Your task to perform on an android device: turn on notifications settings in the gmail app Image 0: 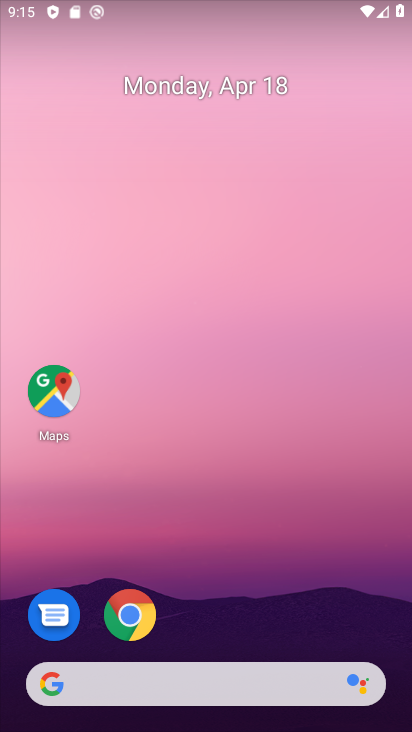
Step 0: drag from (197, 373) to (197, 331)
Your task to perform on an android device: turn on notifications settings in the gmail app Image 1: 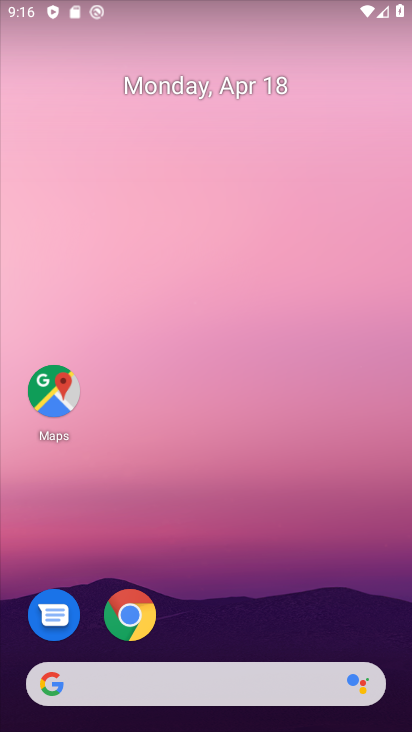
Step 1: drag from (184, 660) to (201, 304)
Your task to perform on an android device: turn on notifications settings in the gmail app Image 2: 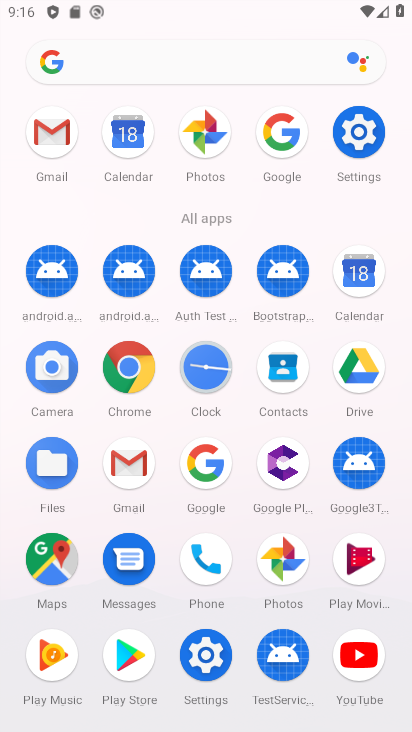
Step 2: click (55, 134)
Your task to perform on an android device: turn on notifications settings in the gmail app Image 3: 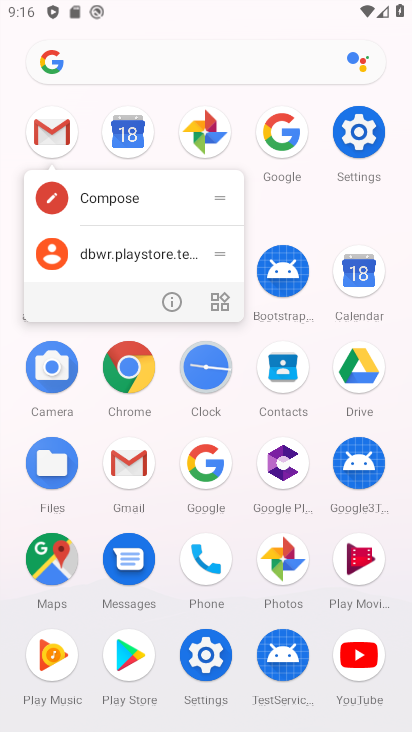
Step 3: click (54, 140)
Your task to perform on an android device: turn on notifications settings in the gmail app Image 4: 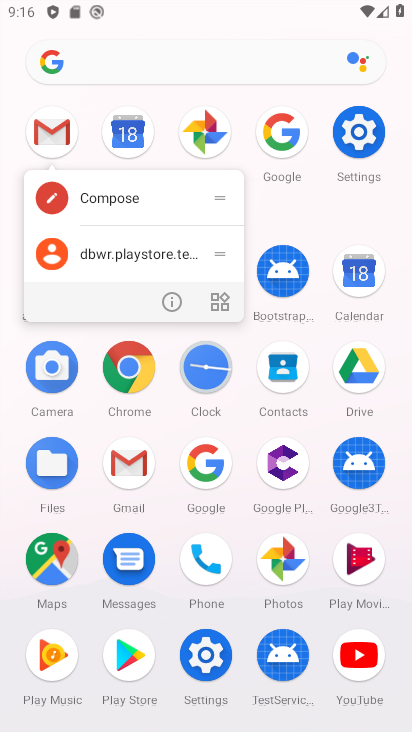
Step 4: click (54, 140)
Your task to perform on an android device: turn on notifications settings in the gmail app Image 5: 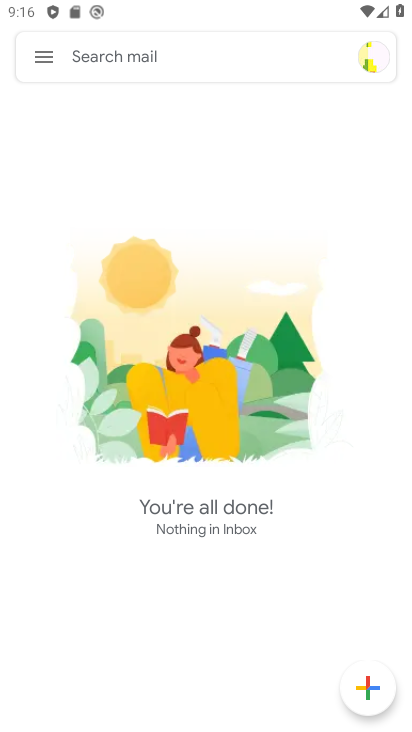
Step 5: click (38, 65)
Your task to perform on an android device: turn on notifications settings in the gmail app Image 6: 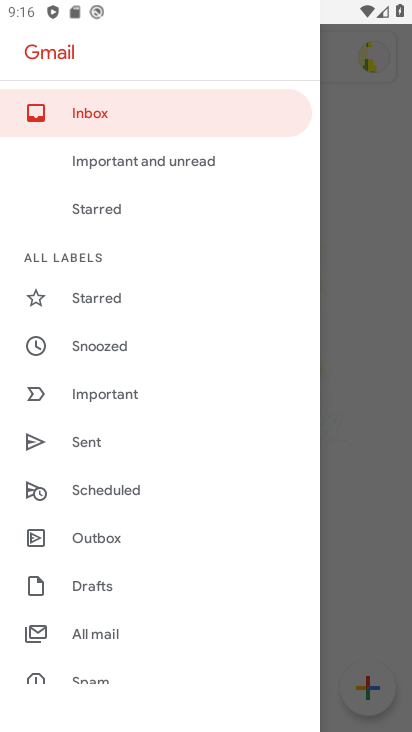
Step 6: drag from (132, 684) to (178, 427)
Your task to perform on an android device: turn on notifications settings in the gmail app Image 7: 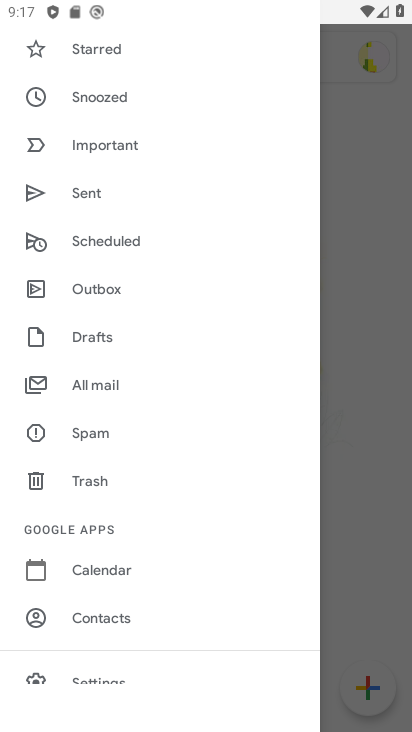
Step 7: click (76, 677)
Your task to perform on an android device: turn on notifications settings in the gmail app Image 8: 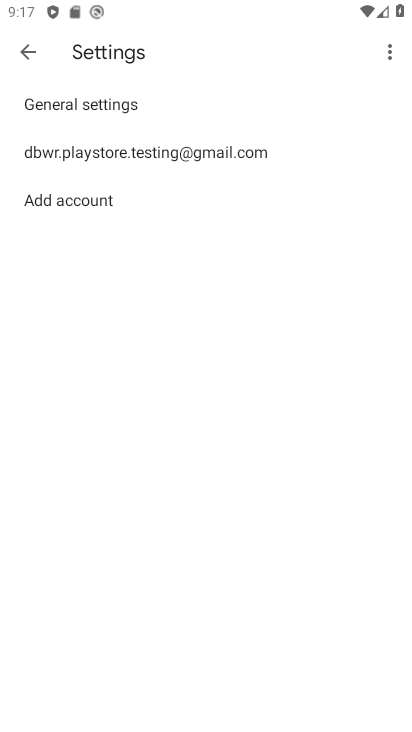
Step 8: click (66, 106)
Your task to perform on an android device: turn on notifications settings in the gmail app Image 9: 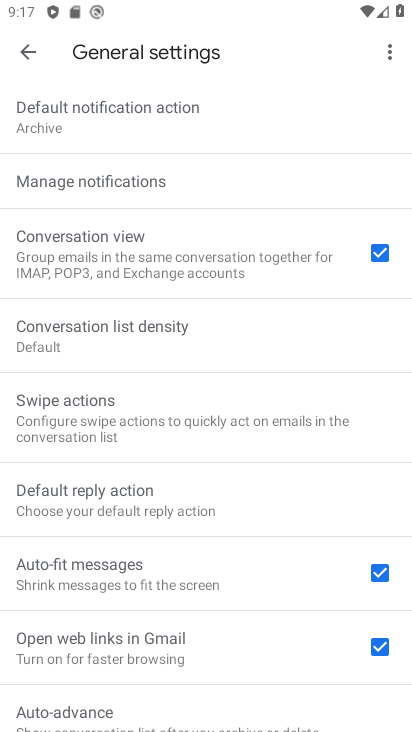
Step 9: click (92, 181)
Your task to perform on an android device: turn on notifications settings in the gmail app Image 10: 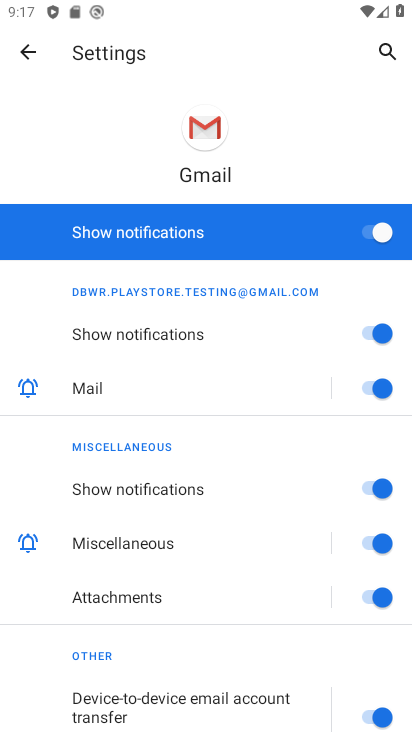
Step 10: task complete